Your task to perform on an android device: toggle location history Image 0: 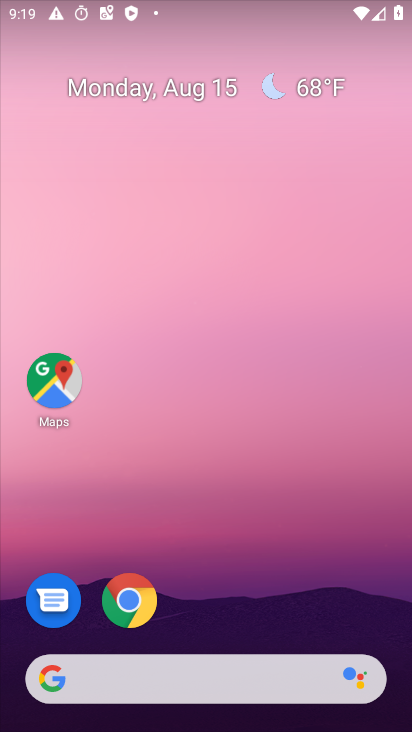
Step 0: drag from (215, 646) to (215, 61)
Your task to perform on an android device: toggle location history Image 1: 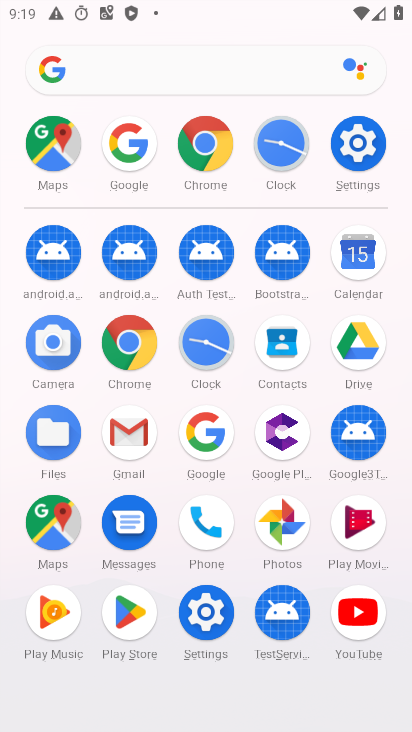
Step 1: click (357, 145)
Your task to perform on an android device: toggle location history Image 2: 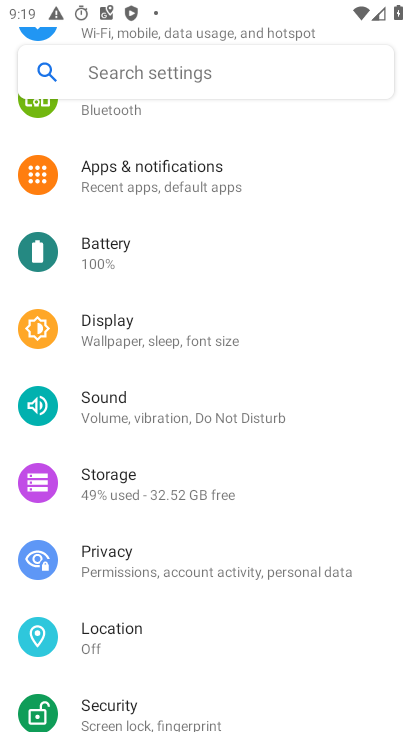
Step 2: click (105, 630)
Your task to perform on an android device: toggle location history Image 3: 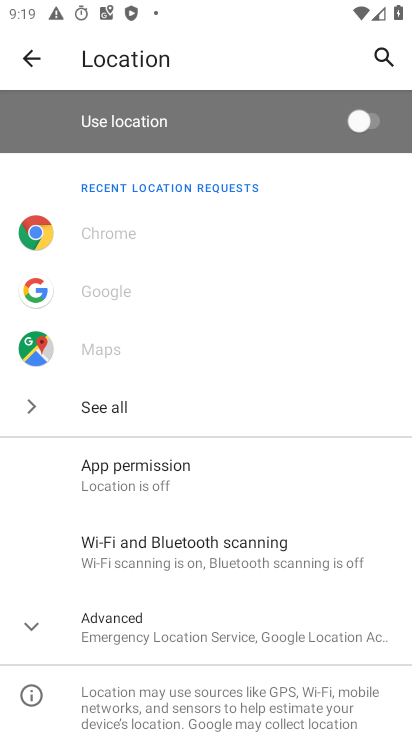
Step 3: click (103, 634)
Your task to perform on an android device: toggle location history Image 4: 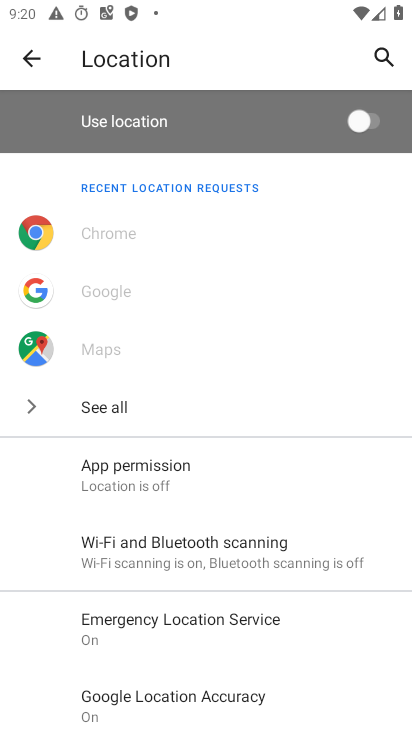
Step 4: drag from (200, 687) to (197, 393)
Your task to perform on an android device: toggle location history Image 5: 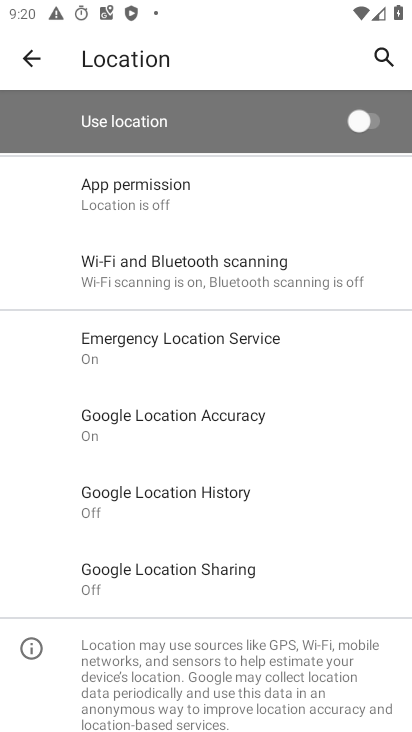
Step 5: click (157, 491)
Your task to perform on an android device: toggle location history Image 6: 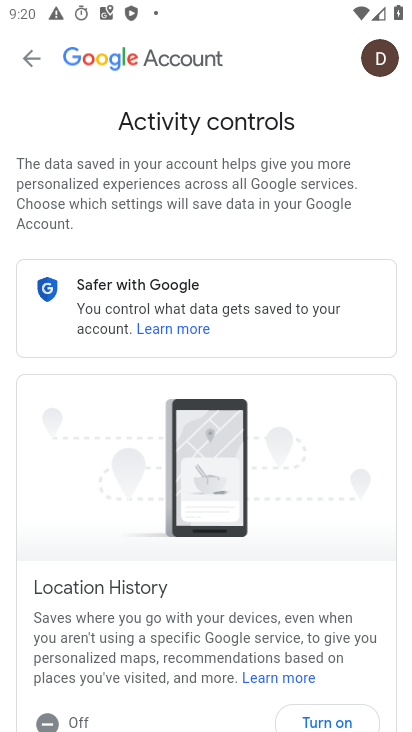
Step 6: click (326, 714)
Your task to perform on an android device: toggle location history Image 7: 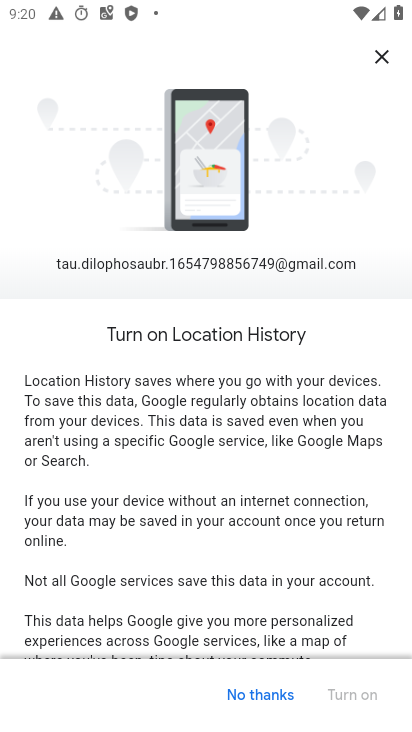
Step 7: drag from (280, 630) to (282, 234)
Your task to perform on an android device: toggle location history Image 8: 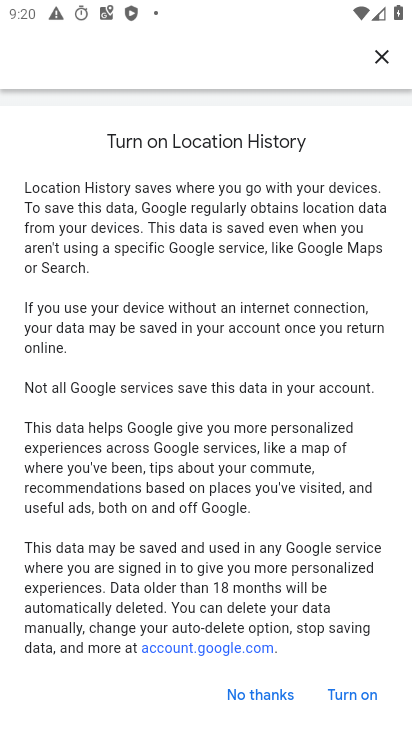
Step 8: click (352, 696)
Your task to perform on an android device: toggle location history Image 9: 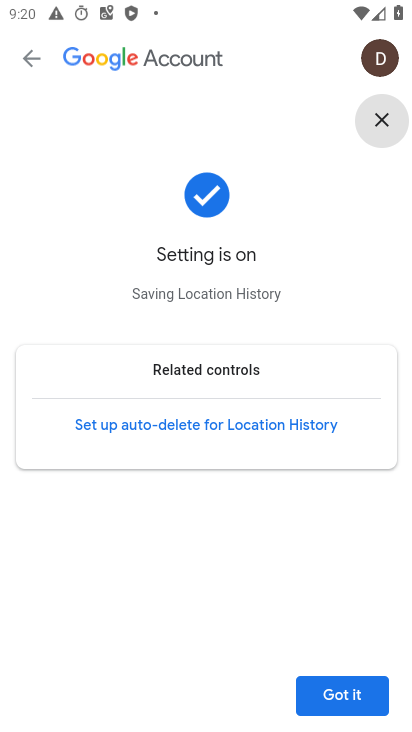
Step 9: click (340, 694)
Your task to perform on an android device: toggle location history Image 10: 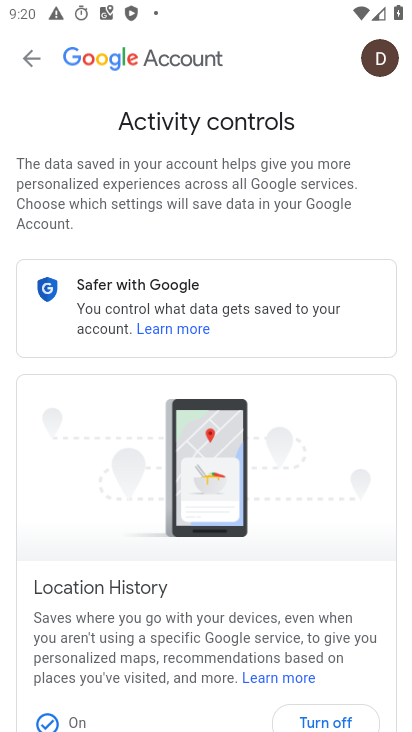
Step 10: task complete